Your task to perform on an android device: Add lenovo thinkpad to the cart on newegg.com, then select checkout. Image 0: 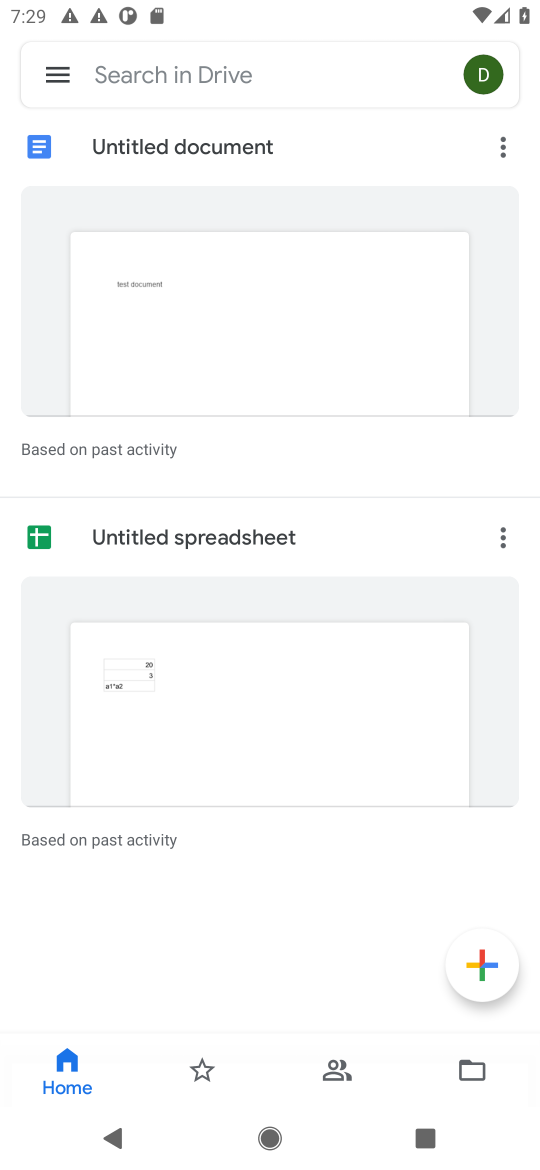
Step 0: press home button
Your task to perform on an android device: Add lenovo thinkpad to the cart on newegg.com, then select checkout. Image 1: 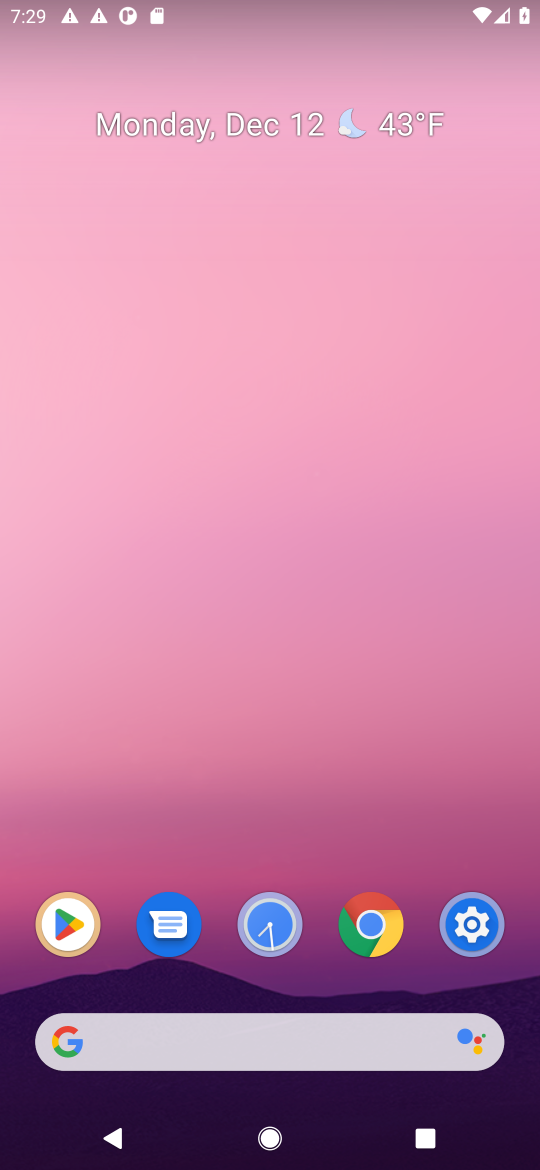
Step 1: drag from (240, 979) to (330, 115)
Your task to perform on an android device: Add lenovo thinkpad to the cart on newegg.com, then select checkout. Image 2: 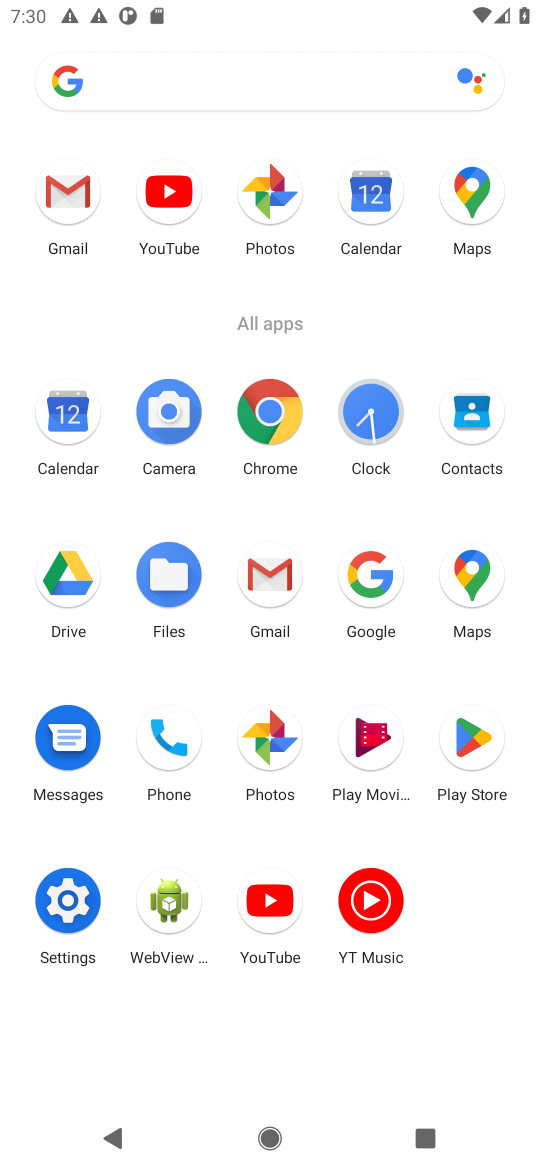
Step 2: click (360, 587)
Your task to perform on an android device: Add lenovo thinkpad to the cart on newegg.com, then select checkout. Image 3: 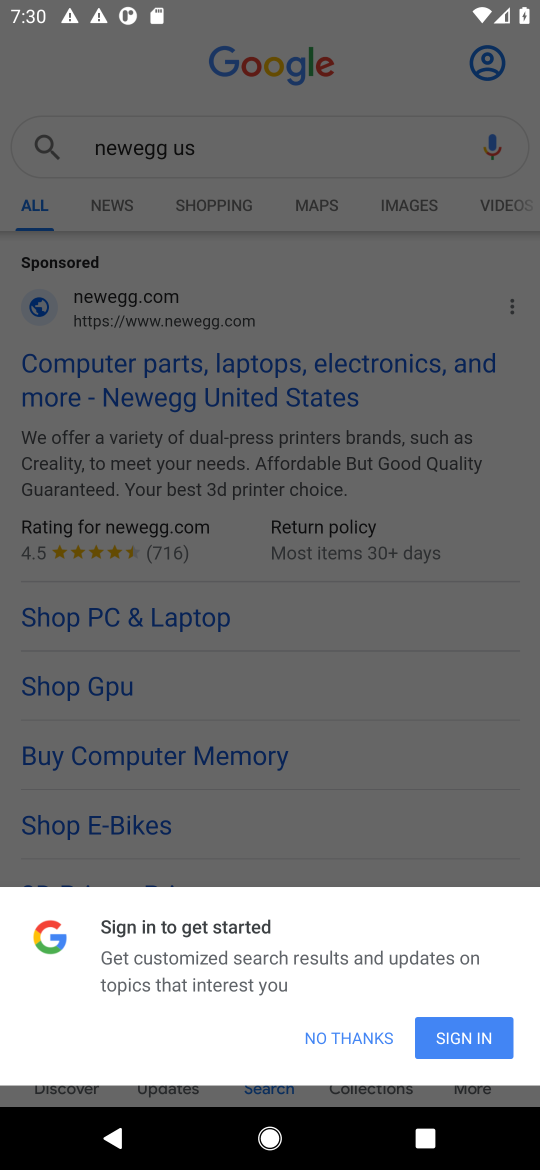
Step 3: click (338, 1042)
Your task to perform on an android device: Add lenovo thinkpad to the cart on newegg.com, then select checkout. Image 4: 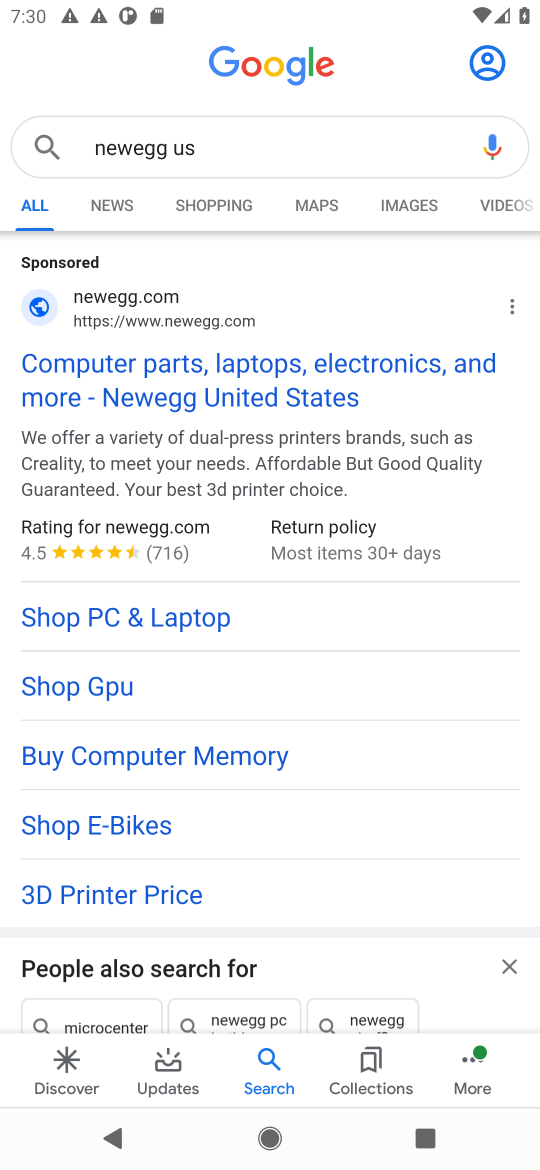
Step 4: click (157, 354)
Your task to perform on an android device: Add lenovo thinkpad to the cart on newegg.com, then select checkout. Image 5: 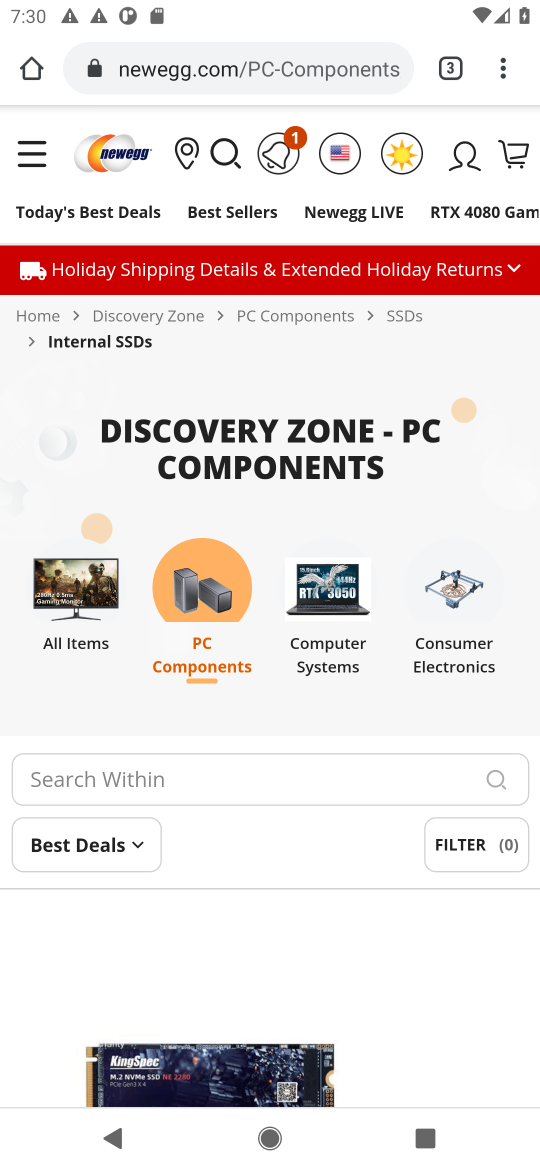
Step 5: click (223, 154)
Your task to perform on an android device: Add lenovo thinkpad to the cart on newegg.com, then select checkout. Image 6: 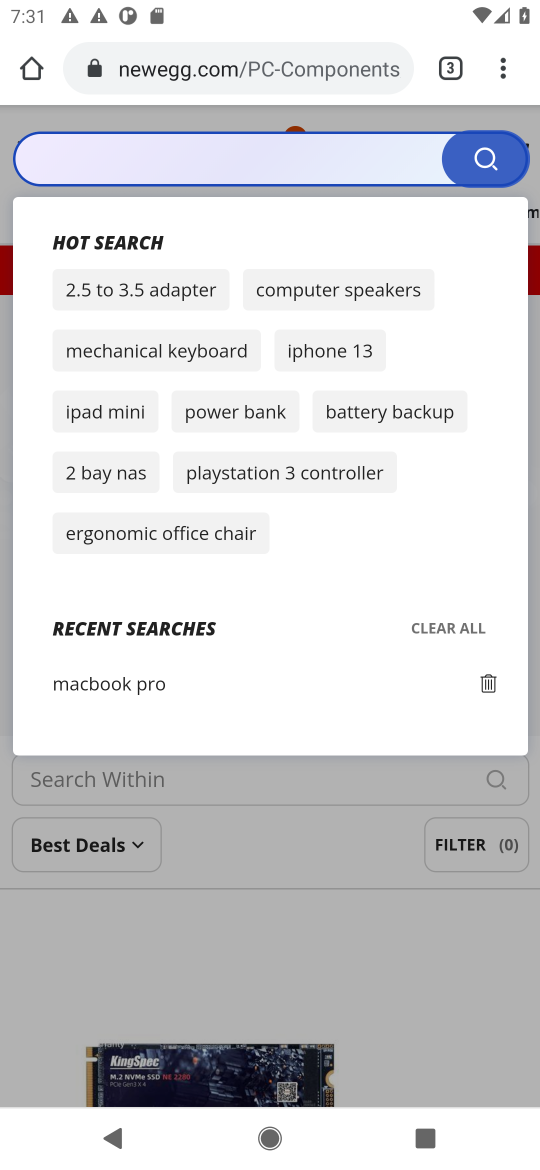
Step 6: click (306, 164)
Your task to perform on an android device: Add lenovo thinkpad to the cart on newegg.com, then select checkout. Image 7: 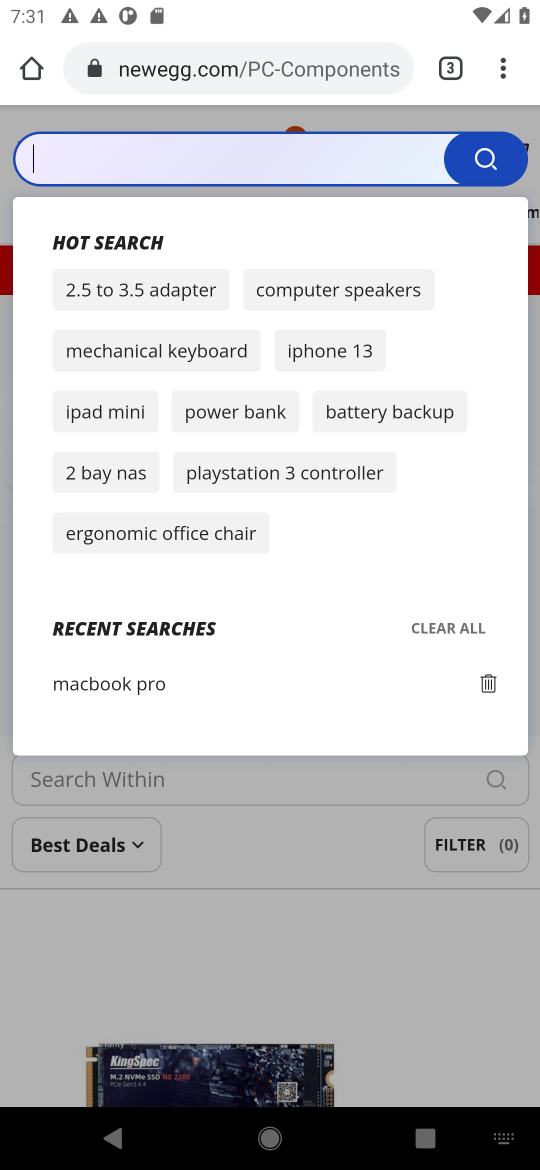
Step 7: type " lenovo thinkpad"
Your task to perform on an android device: Add lenovo thinkpad to the cart on newegg.com, then select checkout. Image 8: 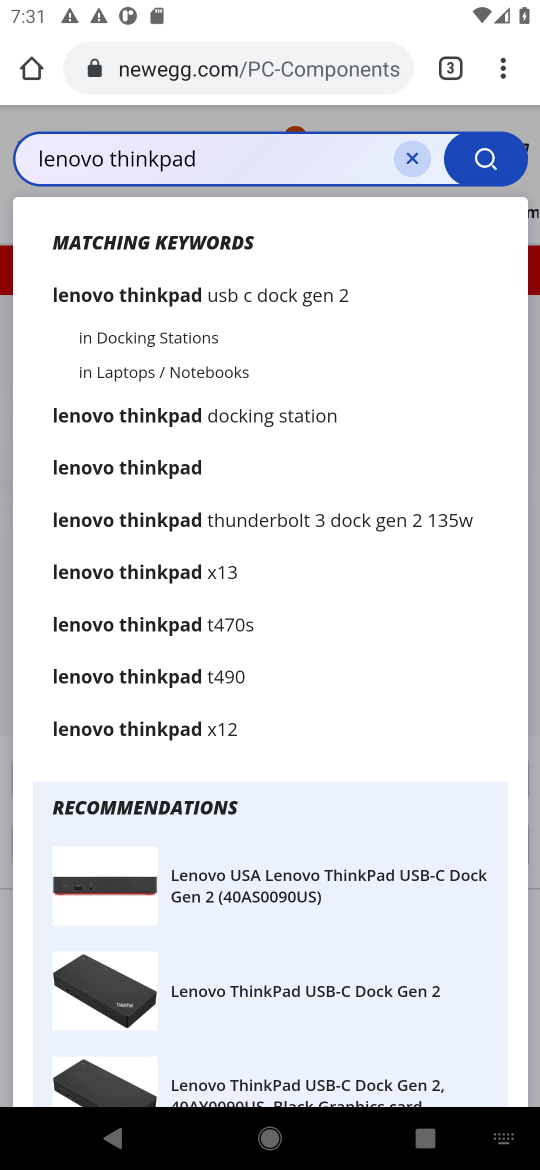
Step 8: click (479, 155)
Your task to perform on an android device: Add lenovo thinkpad to the cart on newegg.com, then select checkout. Image 9: 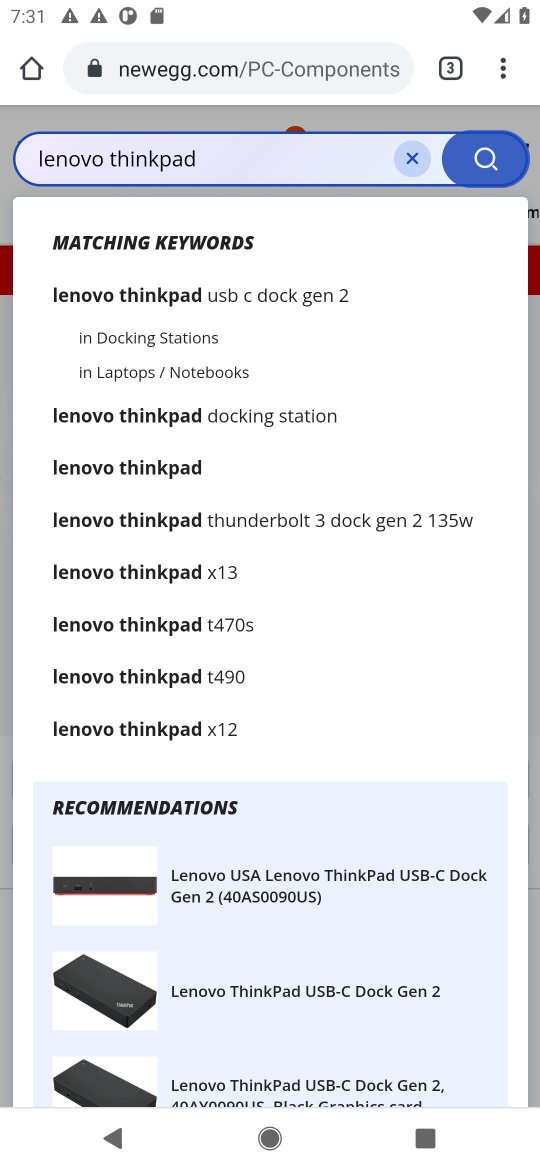
Step 9: click (479, 155)
Your task to perform on an android device: Add lenovo thinkpad to the cart on newegg.com, then select checkout. Image 10: 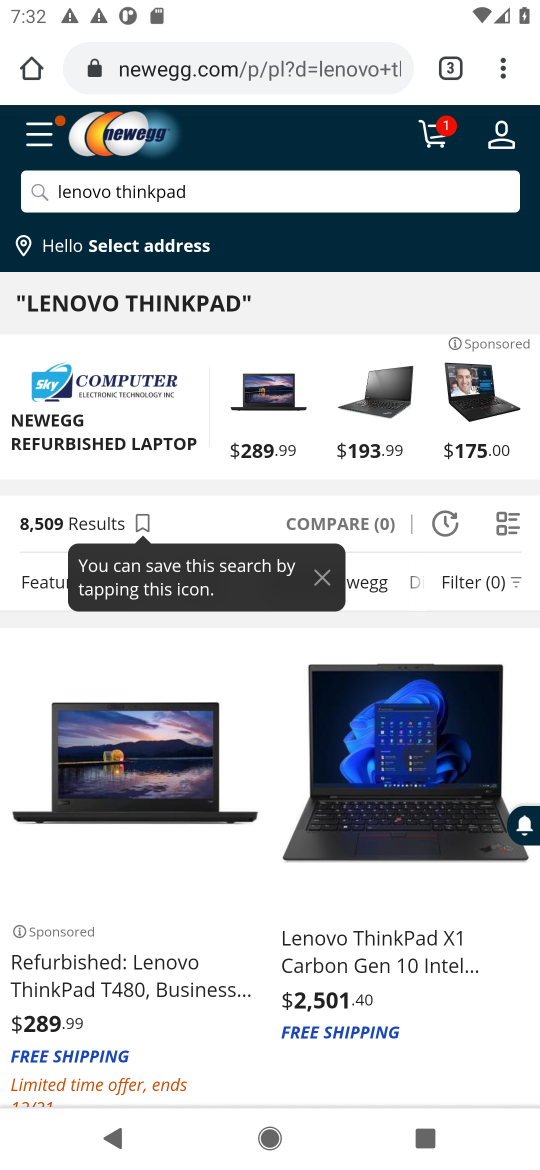
Step 10: click (96, 950)
Your task to perform on an android device: Add lenovo thinkpad to the cart on newegg.com, then select checkout. Image 11: 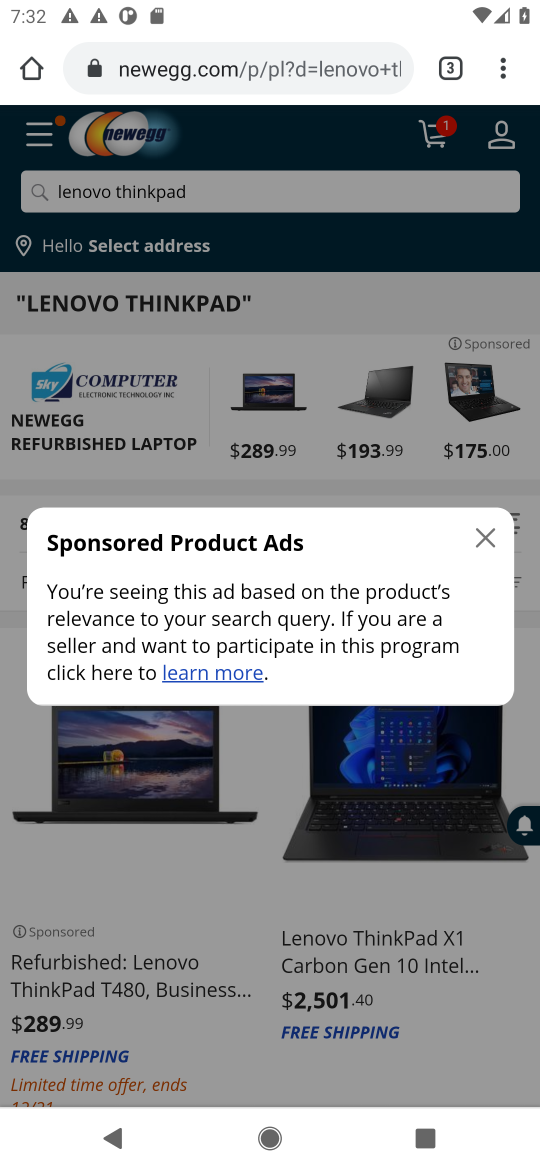
Step 11: click (485, 547)
Your task to perform on an android device: Add lenovo thinkpad to the cart on newegg.com, then select checkout. Image 12: 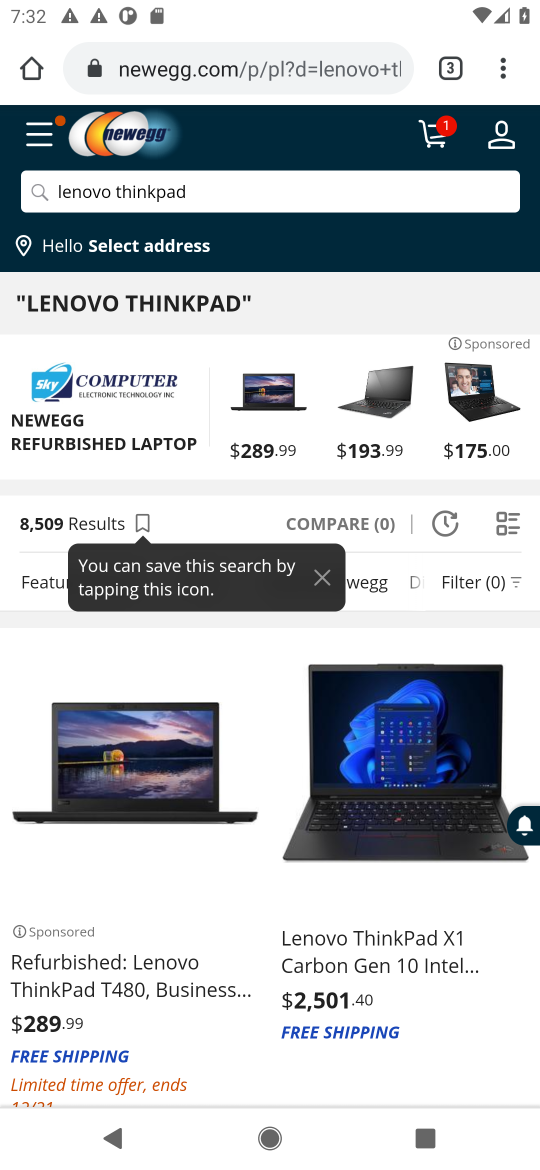
Step 12: click (109, 811)
Your task to perform on an android device: Add lenovo thinkpad to the cart on newegg.com, then select checkout. Image 13: 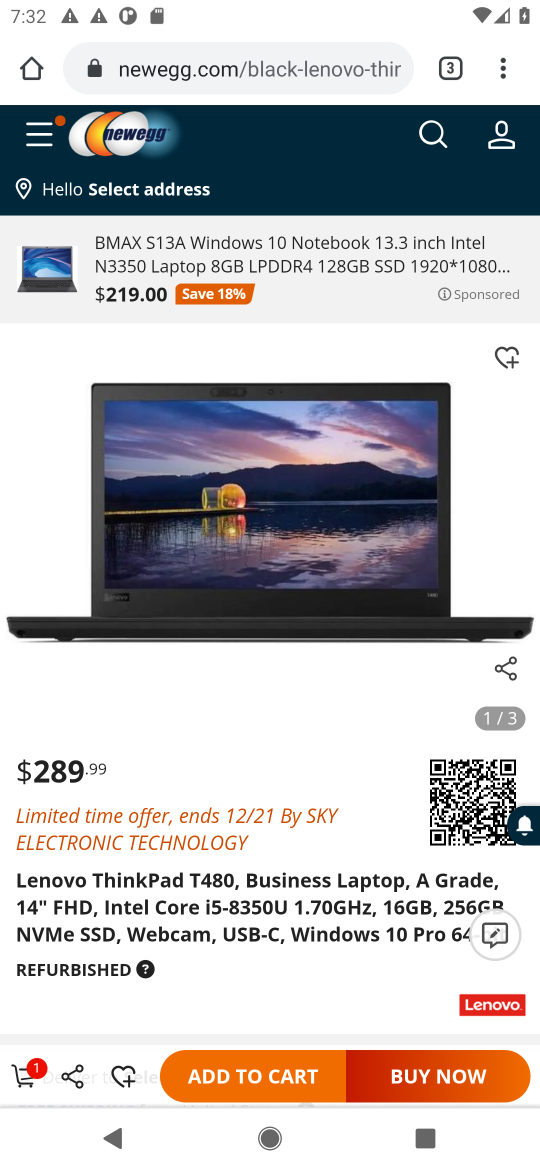
Step 13: click (224, 1072)
Your task to perform on an android device: Add lenovo thinkpad to the cart on newegg.com, then select checkout. Image 14: 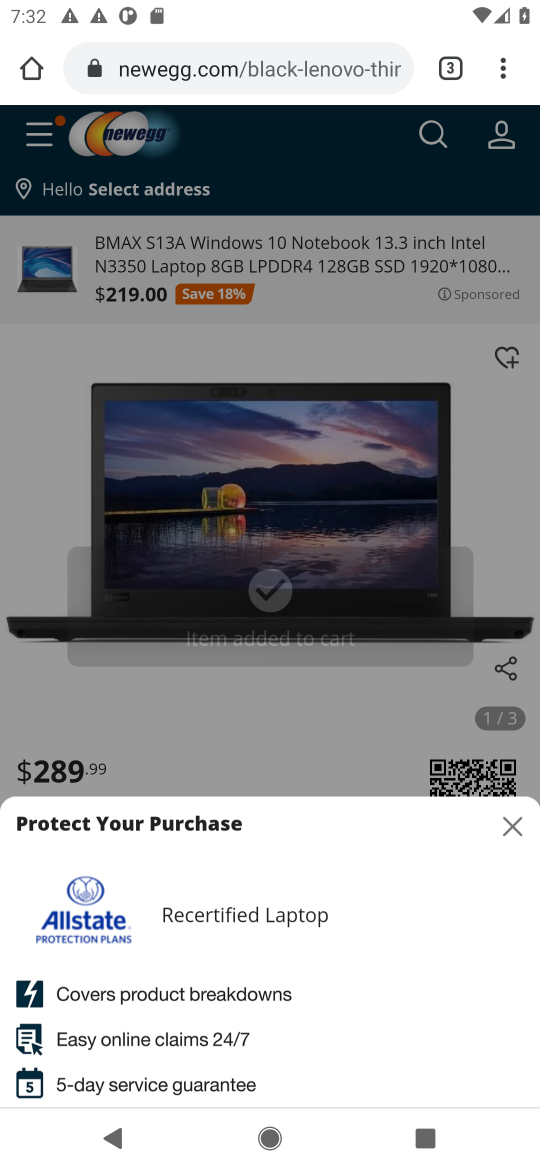
Step 14: click (28, 1076)
Your task to perform on an android device: Add lenovo thinkpad to the cart on newegg.com, then select checkout. Image 15: 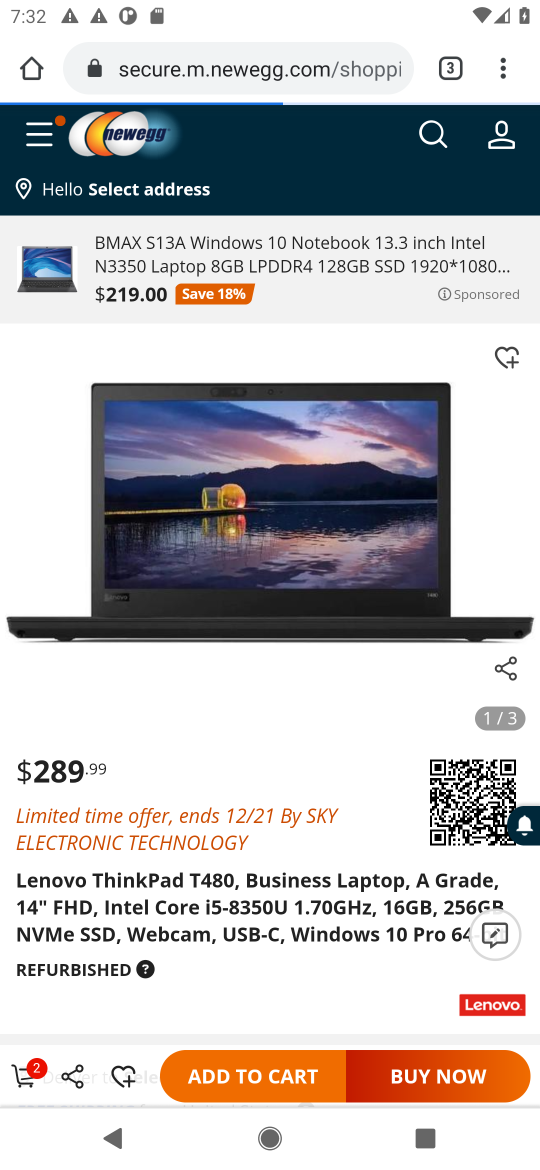
Step 15: click (209, 1063)
Your task to perform on an android device: Add lenovo thinkpad to the cart on newegg.com, then select checkout. Image 16: 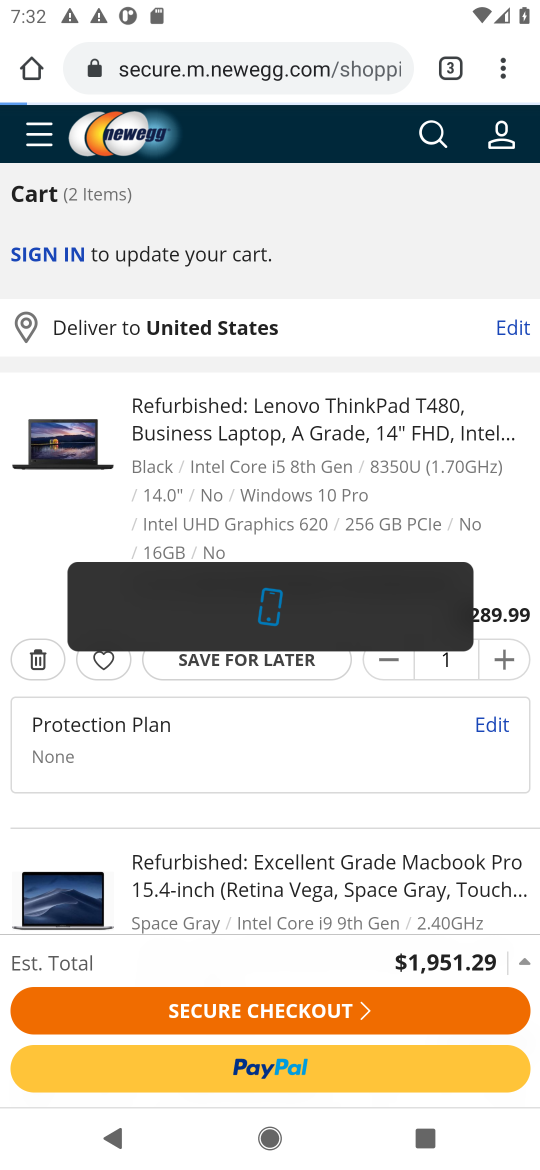
Step 16: click (241, 1069)
Your task to perform on an android device: Add lenovo thinkpad to the cart on newegg.com, then select checkout. Image 17: 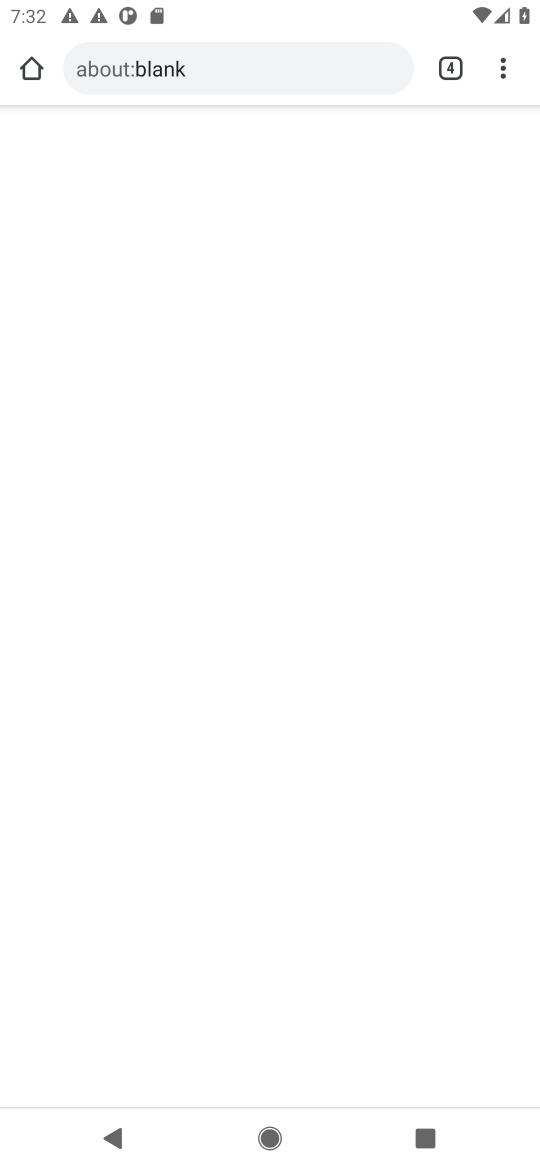
Step 17: click (285, 1005)
Your task to perform on an android device: Add lenovo thinkpad to the cart on newegg.com, then select checkout. Image 18: 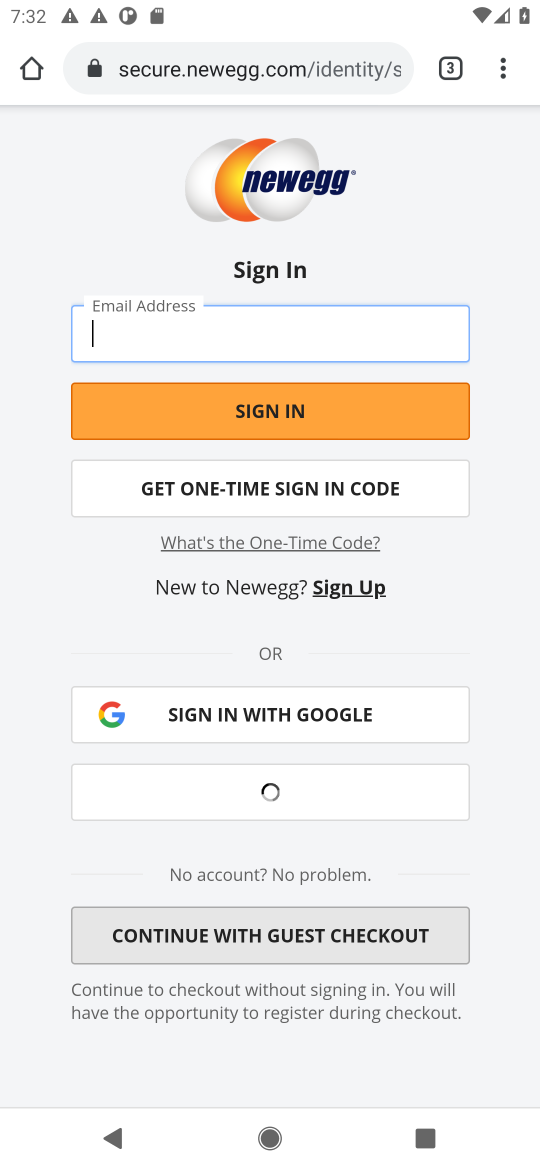
Step 18: task complete